Your task to perform on an android device: check android version Image 0: 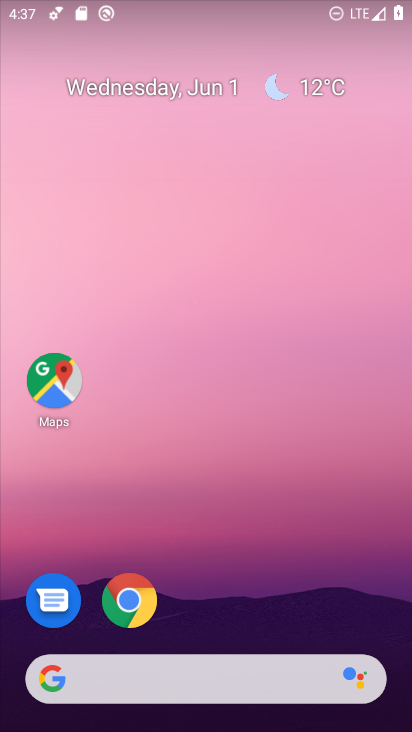
Step 0: drag from (364, 580) to (371, 37)
Your task to perform on an android device: check android version Image 1: 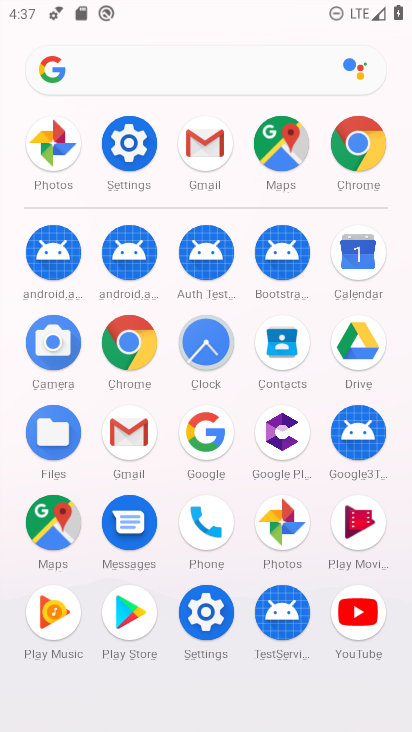
Step 1: click (207, 611)
Your task to perform on an android device: check android version Image 2: 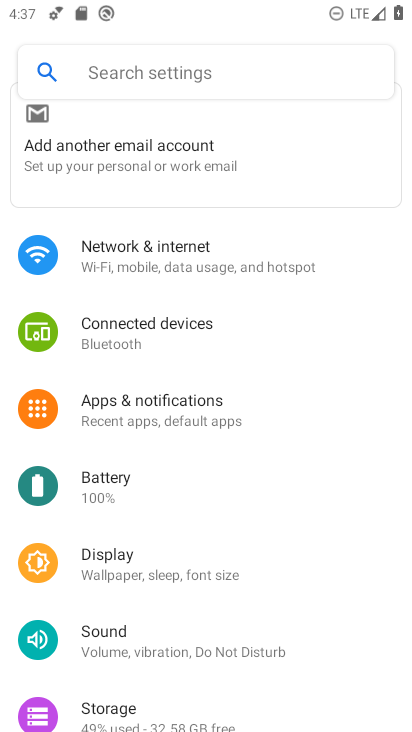
Step 2: drag from (298, 663) to (273, 205)
Your task to perform on an android device: check android version Image 3: 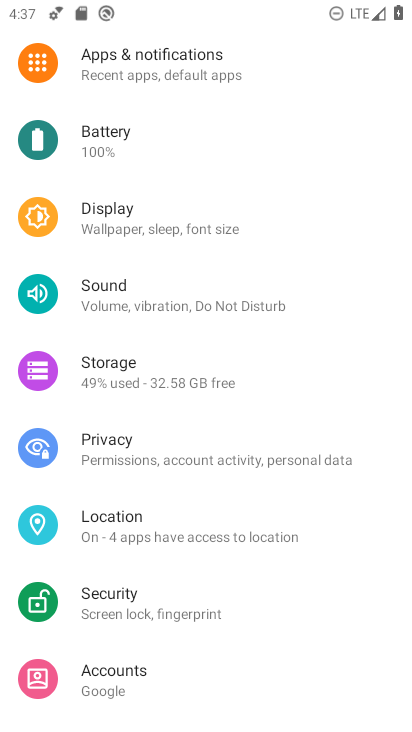
Step 3: drag from (300, 657) to (342, 283)
Your task to perform on an android device: check android version Image 4: 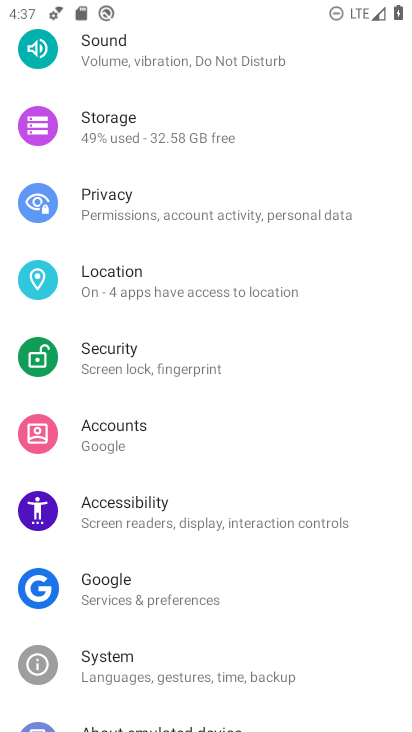
Step 4: drag from (338, 668) to (319, 202)
Your task to perform on an android device: check android version Image 5: 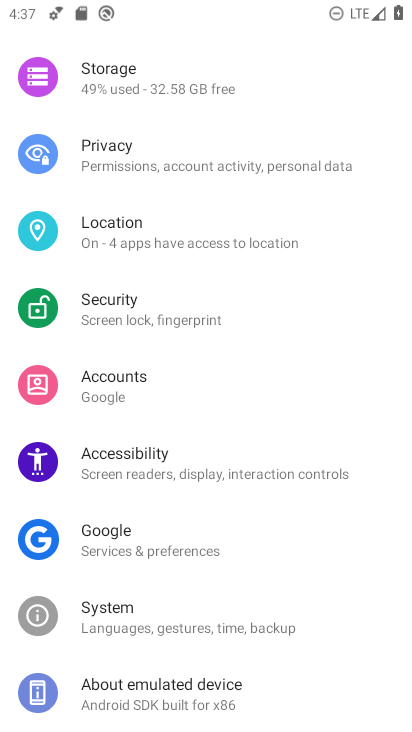
Step 5: click (137, 686)
Your task to perform on an android device: check android version Image 6: 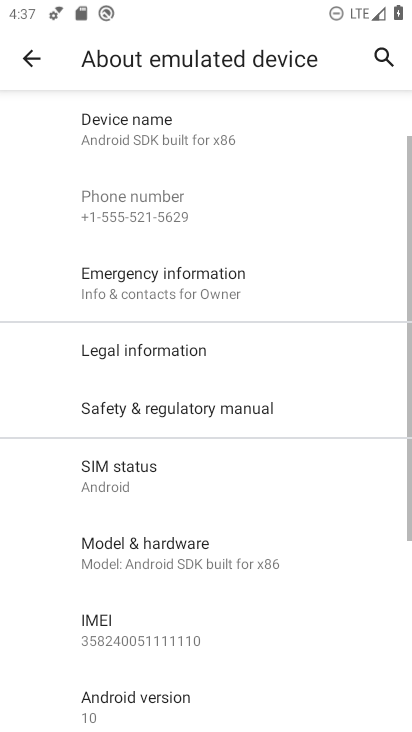
Step 6: drag from (304, 687) to (286, 261)
Your task to perform on an android device: check android version Image 7: 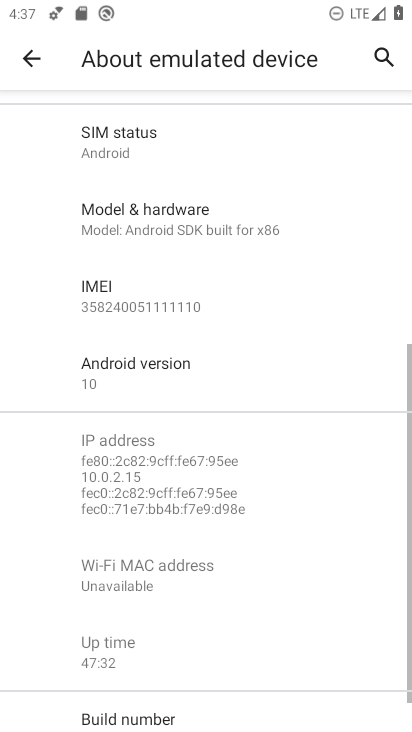
Step 7: click (95, 377)
Your task to perform on an android device: check android version Image 8: 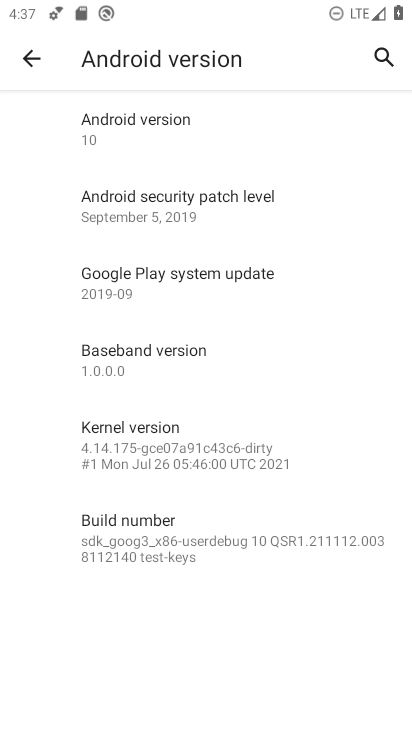
Step 8: task complete